Your task to perform on an android device: Go to notification settings Image 0: 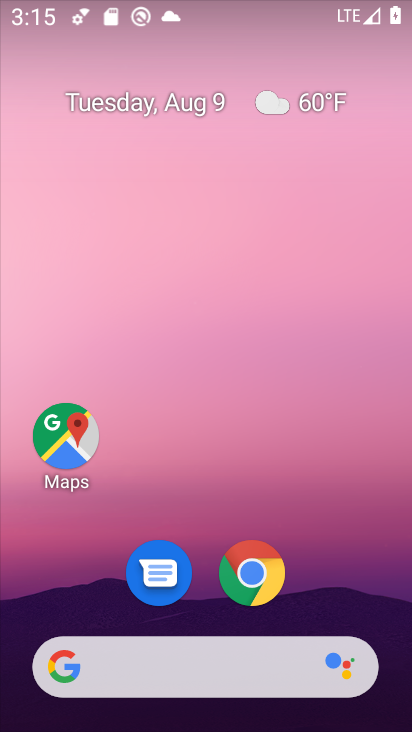
Step 0: drag from (332, 551) to (272, 110)
Your task to perform on an android device: Go to notification settings Image 1: 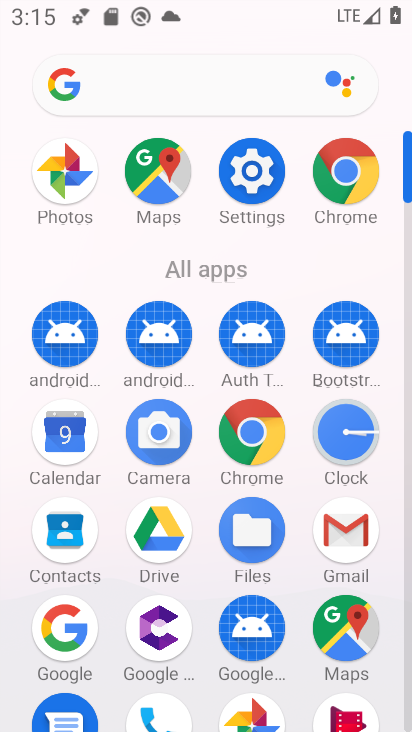
Step 1: drag from (203, 664) to (173, 264)
Your task to perform on an android device: Go to notification settings Image 2: 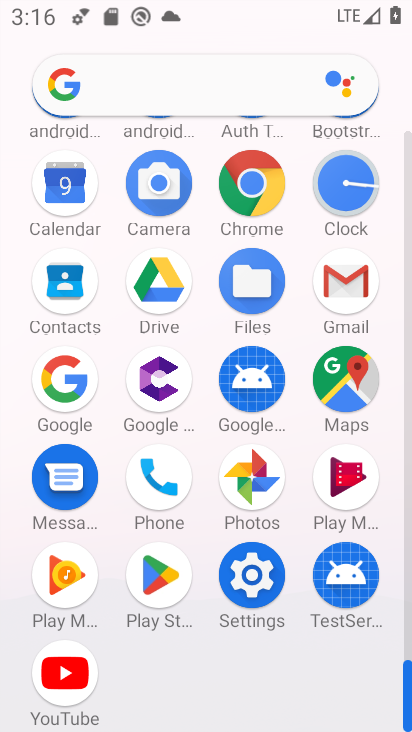
Step 2: click (253, 567)
Your task to perform on an android device: Go to notification settings Image 3: 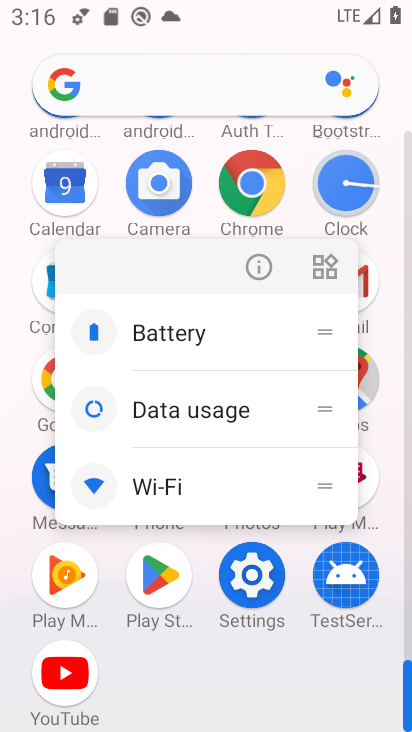
Step 3: click (257, 576)
Your task to perform on an android device: Go to notification settings Image 4: 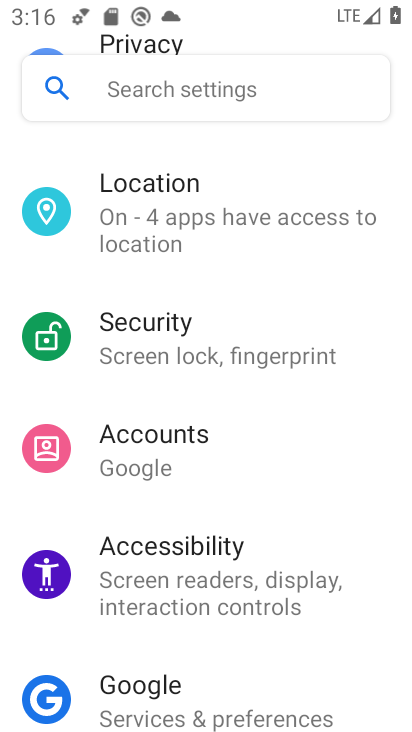
Step 4: drag from (330, 281) to (390, 723)
Your task to perform on an android device: Go to notification settings Image 5: 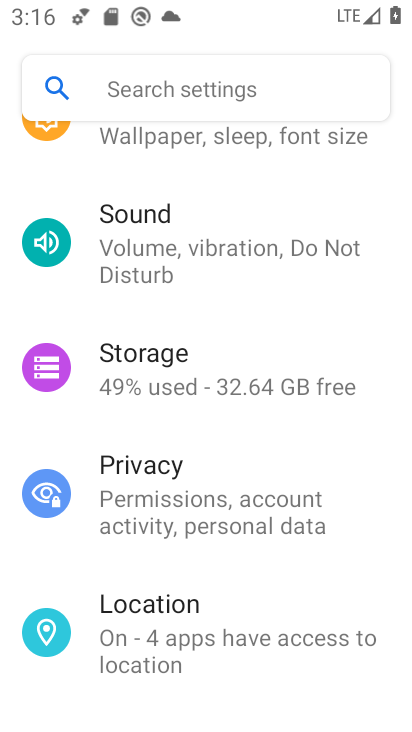
Step 5: drag from (308, 197) to (405, 727)
Your task to perform on an android device: Go to notification settings Image 6: 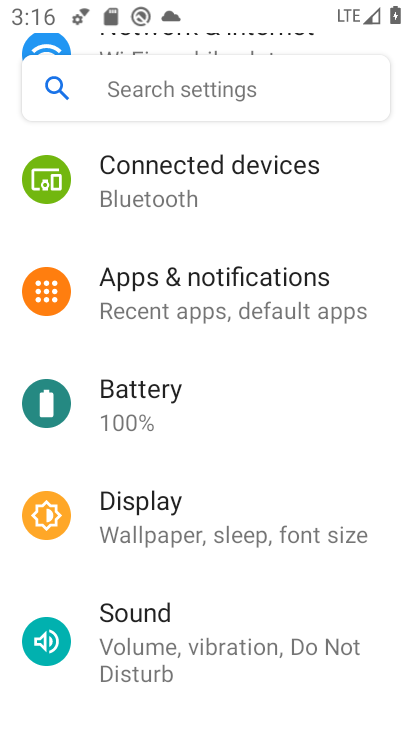
Step 6: click (277, 277)
Your task to perform on an android device: Go to notification settings Image 7: 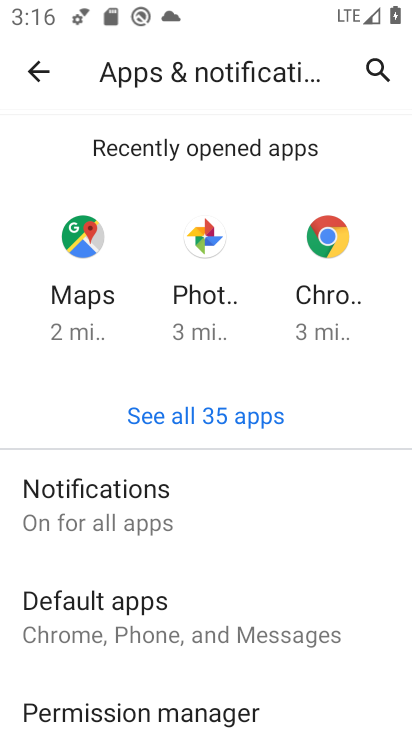
Step 7: click (82, 518)
Your task to perform on an android device: Go to notification settings Image 8: 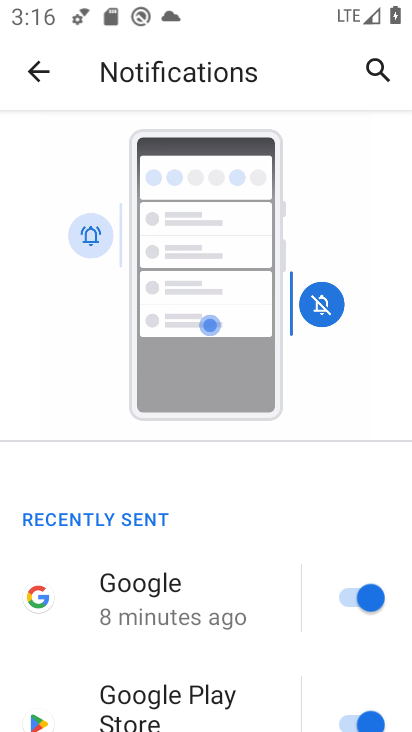
Step 8: task complete